Your task to perform on an android device: refresh tabs in the chrome app Image 0: 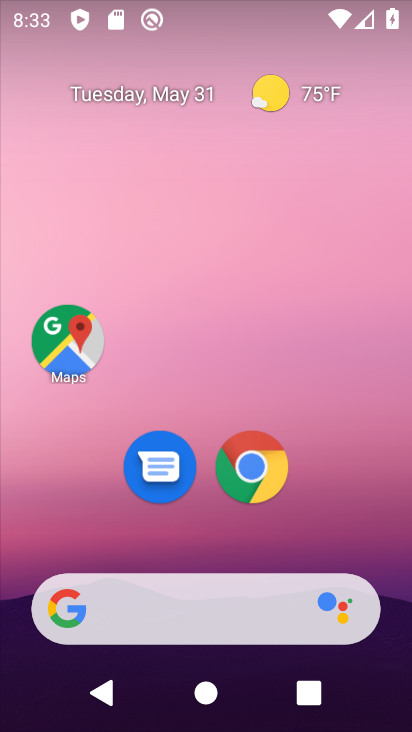
Step 0: click (240, 9)
Your task to perform on an android device: refresh tabs in the chrome app Image 1: 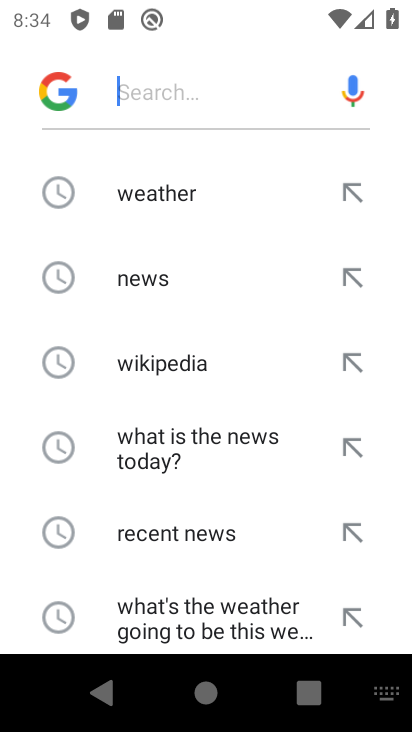
Step 1: press home button
Your task to perform on an android device: refresh tabs in the chrome app Image 2: 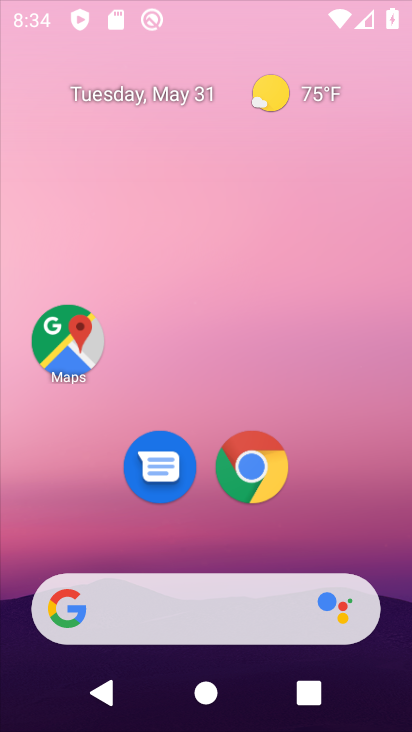
Step 2: drag from (124, 573) to (276, 91)
Your task to perform on an android device: refresh tabs in the chrome app Image 3: 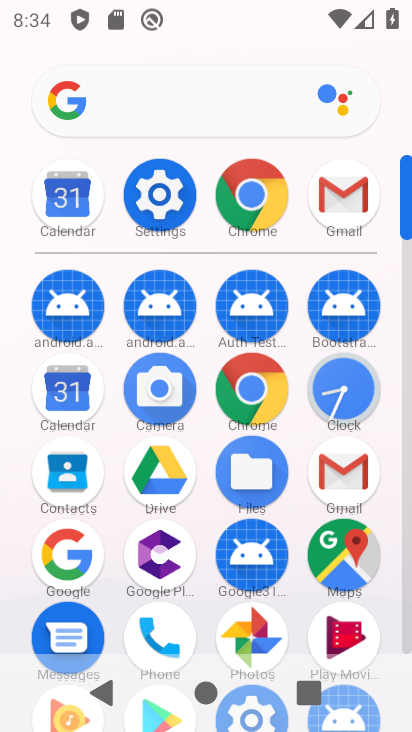
Step 3: click (261, 391)
Your task to perform on an android device: refresh tabs in the chrome app Image 4: 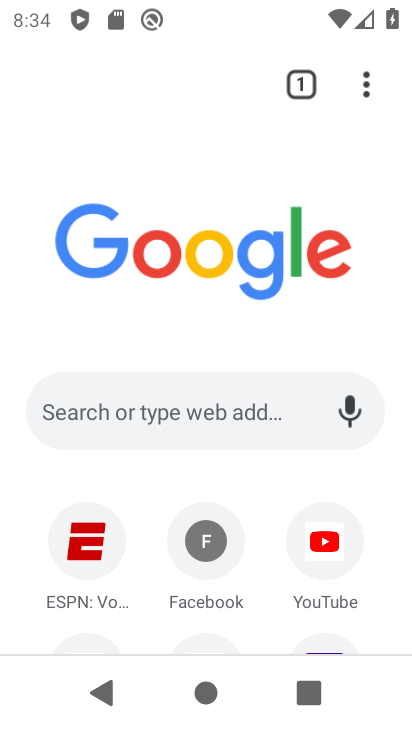
Step 4: task complete